Your task to perform on an android device: toggle show notifications on the lock screen Image 0: 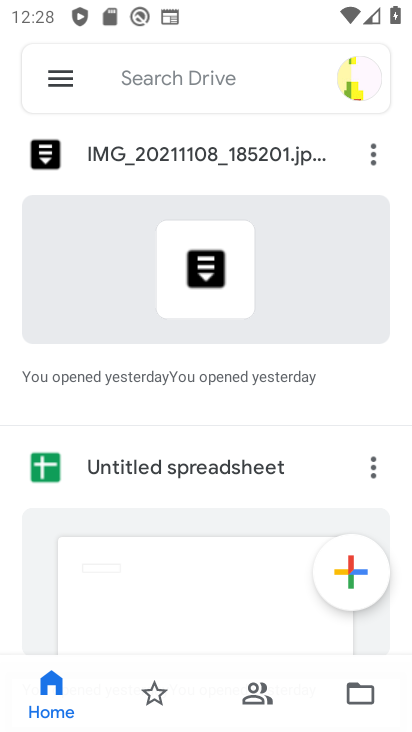
Step 0: press home button
Your task to perform on an android device: toggle show notifications on the lock screen Image 1: 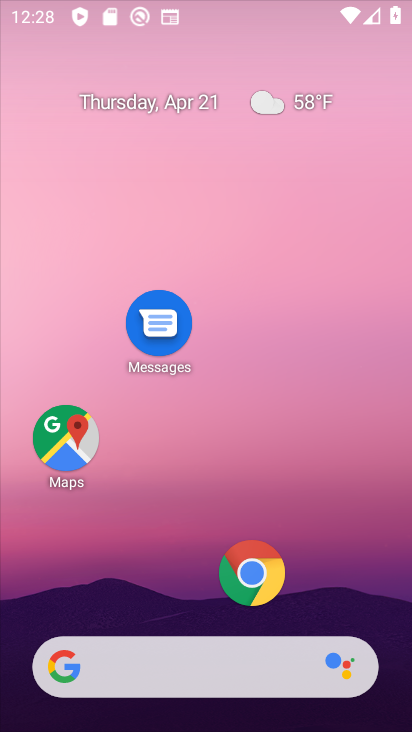
Step 1: drag from (216, 496) to (241, 63)
Your task to perform on an android device: toggle show notifications on the lock screen Image 2: 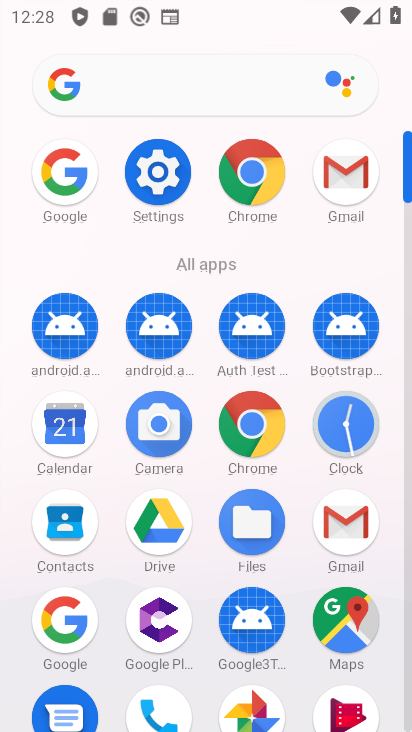
Step 2: click (148, 180)
Your task to perform on an android device: toggle show notifications on the lock screen Image 3: 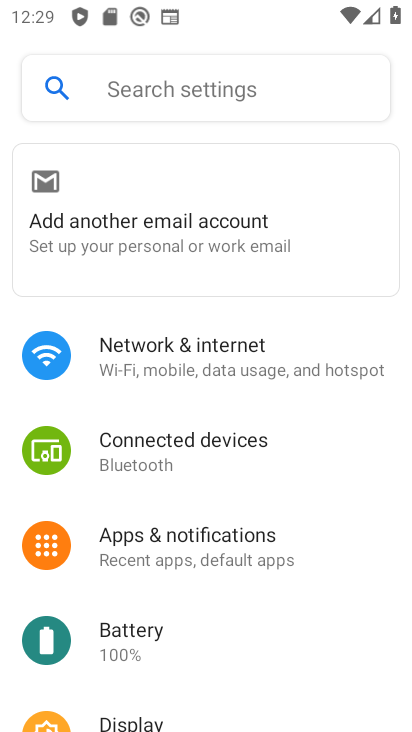
Step 3: click (225, 544)
Your task to perform on an android device: toggle show notifications on the lock screen Image 4: 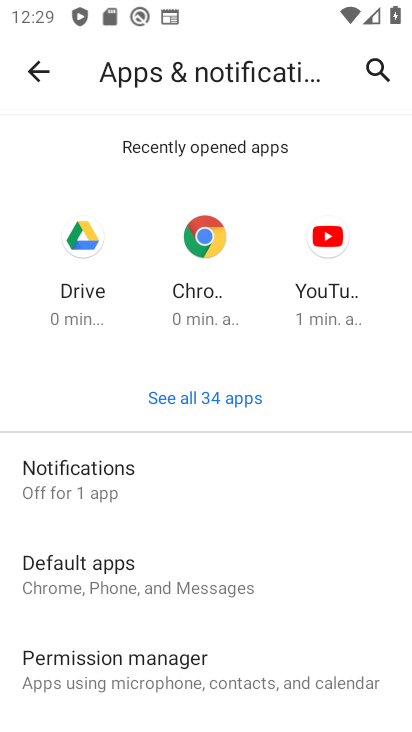
Step 4: drag from (262, 524) to (255, 431)
Your task to perform on an android device: toggle show notifications on the lock screen Image 5: 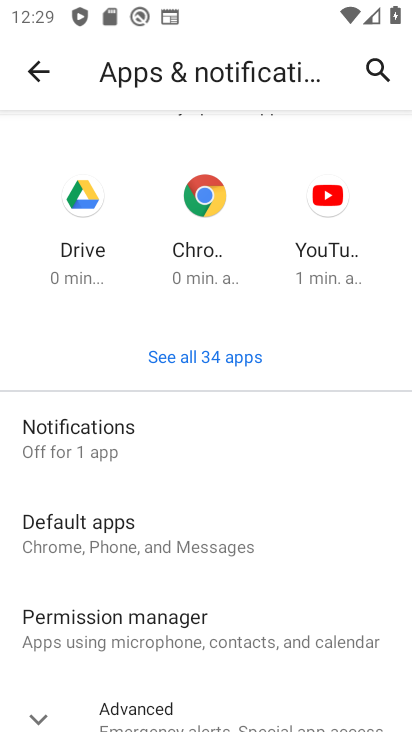
Step 5: click (91, 446)
Your task to perform on an android device: toggle show notifications on the lock screen Image 6: 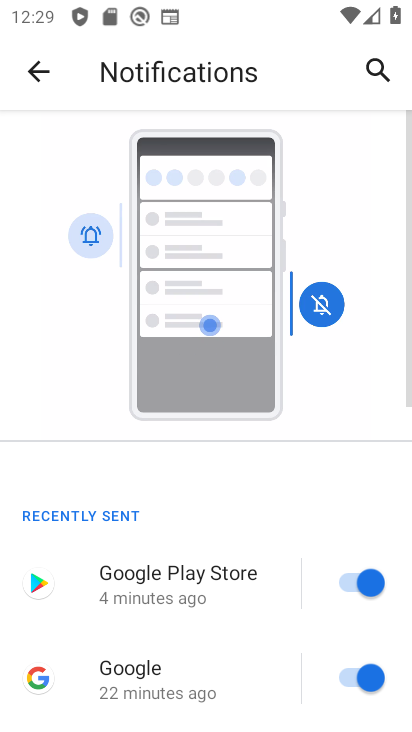
Step 6: drag from (249, 625) to (302, 25)
Your task to perform on an android device: toggle show notifications on the lock screen Image 7: 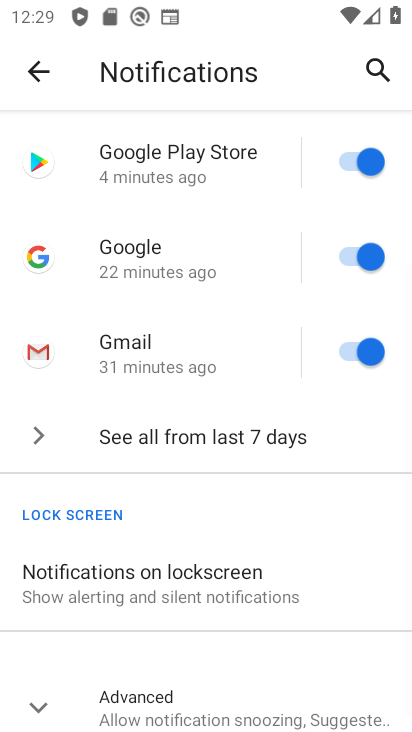
Step 7: click (166, 568)
Your task to perform on an android device: toggle show notifications on the lock screen Image 8: 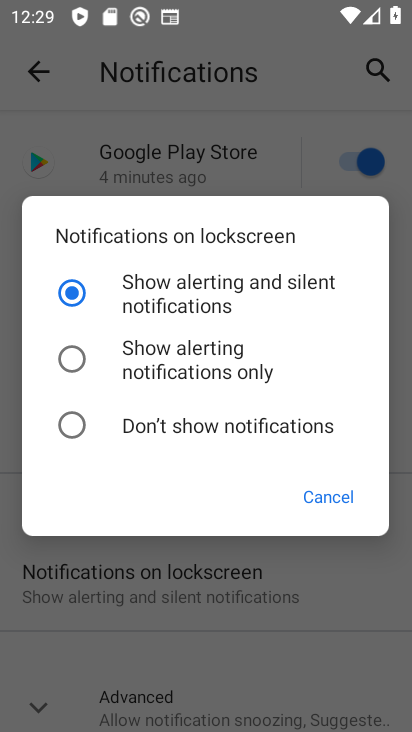
Step 8: click (70, 426)
Your task to perform on an android device: toggle show notifications on the lock screen Image 9: 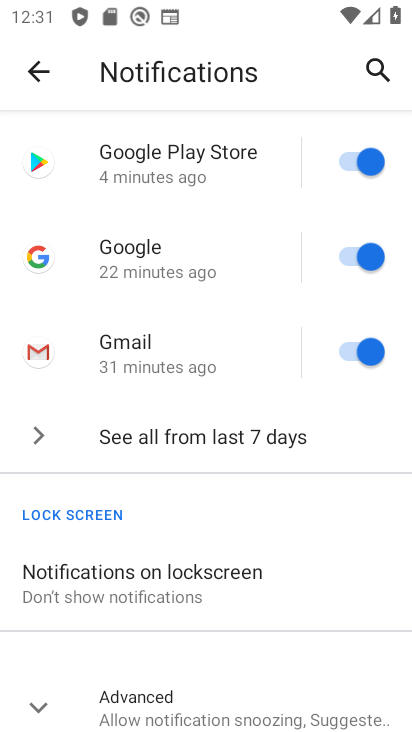
Step 9: task complete